Your task to perform on an android device: star an email in the gmail app Image 0: 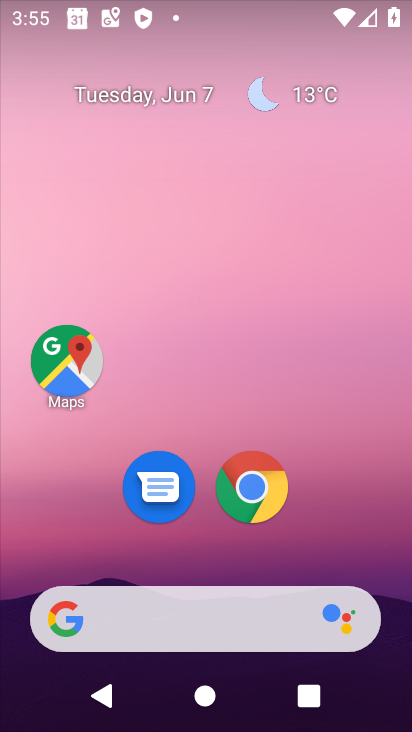
Step 0: drag from (233, 560) to (300, 63)
Your task to perform on an android device: star an email in the gmail app Image 1: 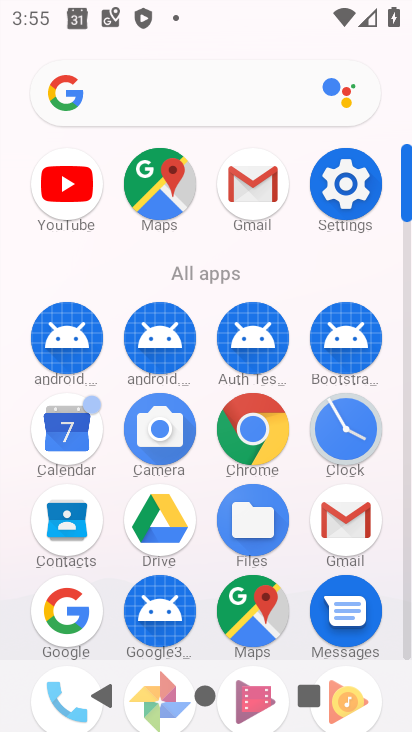
Step 1: click (254, 184)
Your task to perform on an android device: star an email in the gmail app Image 2: 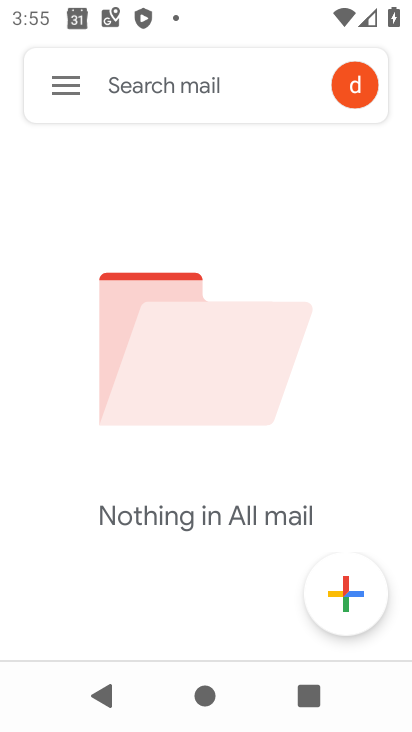
Step 2: task complete